Your task to perform on an android device: Go to privacy settings Image 0: 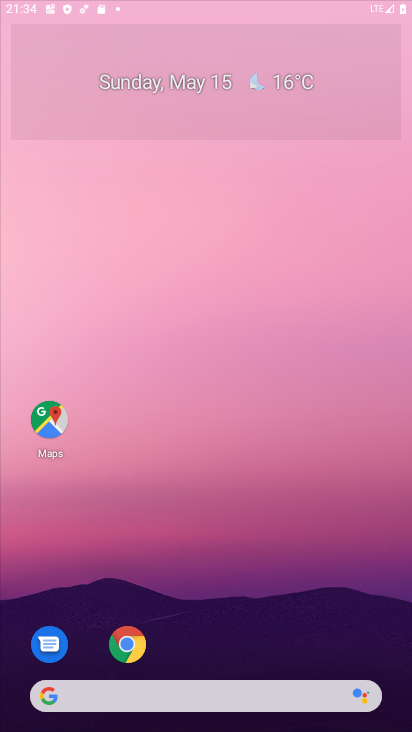
Step 0: drag from (207, 586) to (327, 99)
Your task to perform on an android device: Go to privacy settings Image 1: 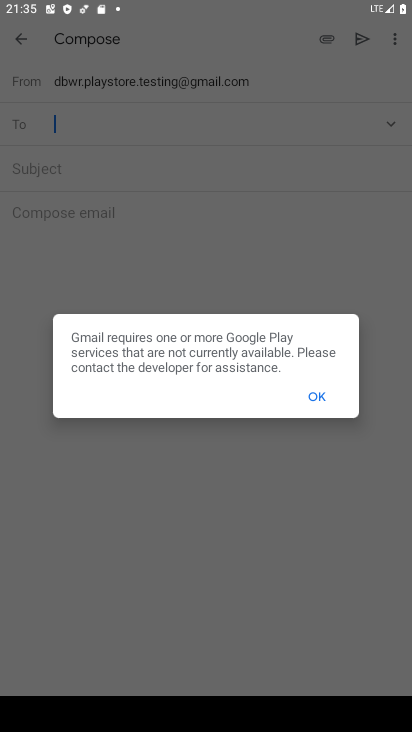
Step 1: press back button
Your task to perform on an android device: Go to privacy settings Image 2: 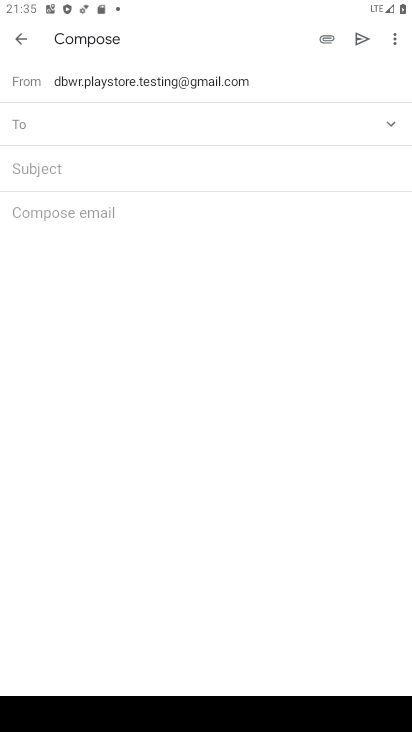
Step 2: press back button
Your task to perform on an android device: Go to privacy settings Image 3: 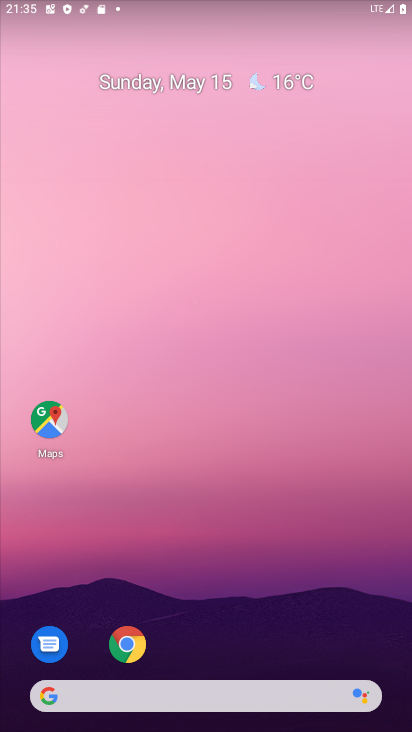
Step 3: drag from (303, 572) to (320, 100)
Your task to perform on an android device: Go to privacy settings Image 4: 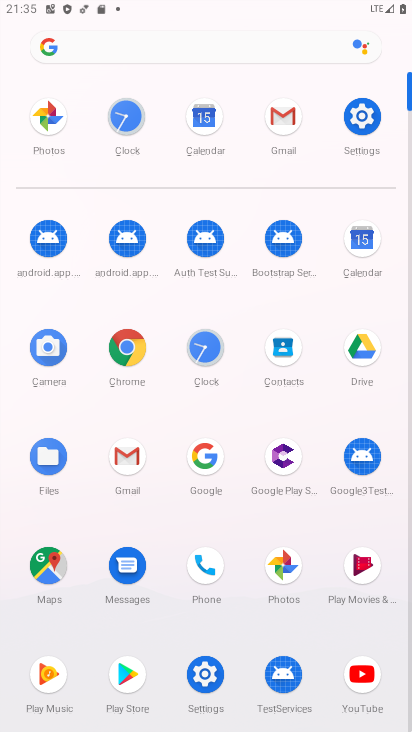
Step 4: click (361, 114)
Your task to perform on an android device: Go to privacy settings Image 5: 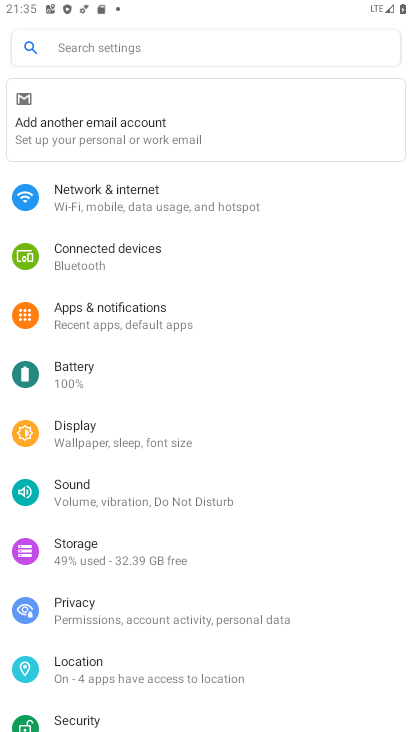
Step 5: click (68, 608)
Your task to perform on an android device: Go to privacy settings Image 6: 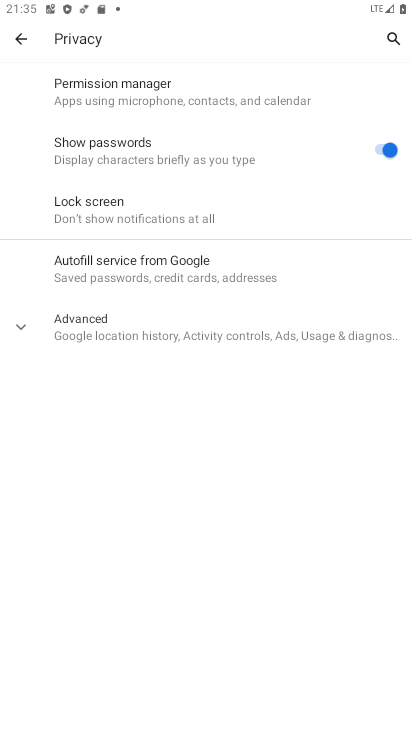
Step 6: task complete